Your task to perform on an android device: What's the weather going to be tomorrow? Image 0: 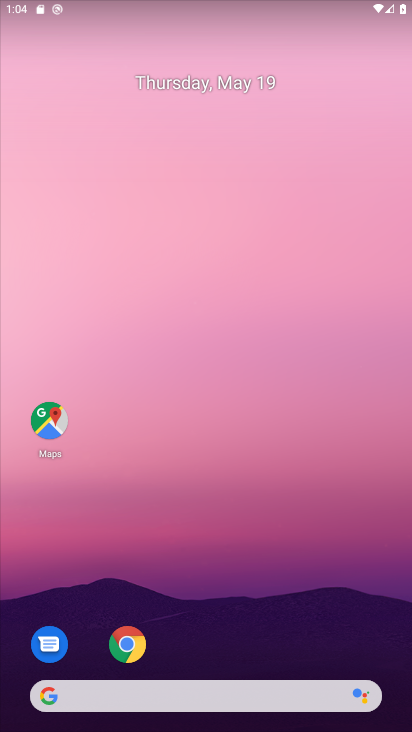
Step 0: click (131, 640)
Your task to perform on an android device: What's the weather going to be tomorrow? Image 1: 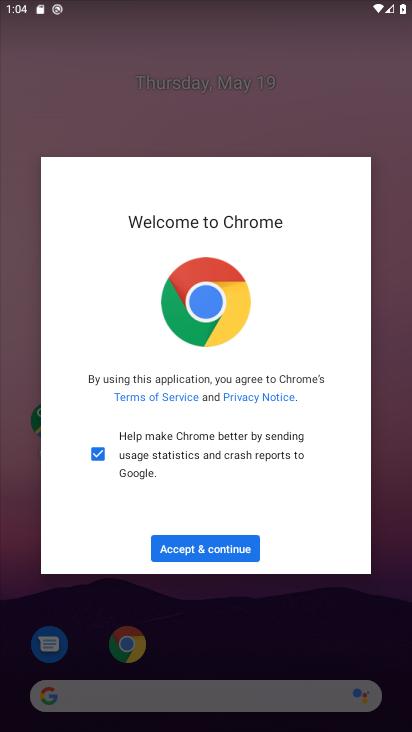
Step 1: click (198, 550)
Your task to perform on an android device: What's the weather going to be tomorrow? Image 2: 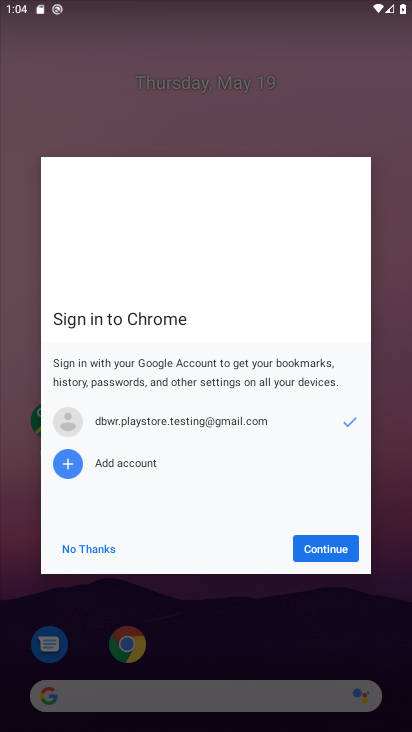
Step 2: click (319, 538)
Your task to perform on an android device: What's the weather going to be tomorrow? Image 3: 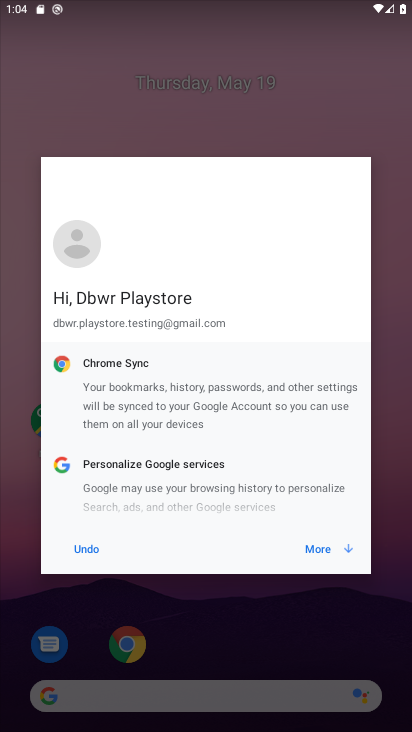
Step 3: click (315, 552)
Your task to perform on an android device: What's the weather going to be tomorrow? Image 4: 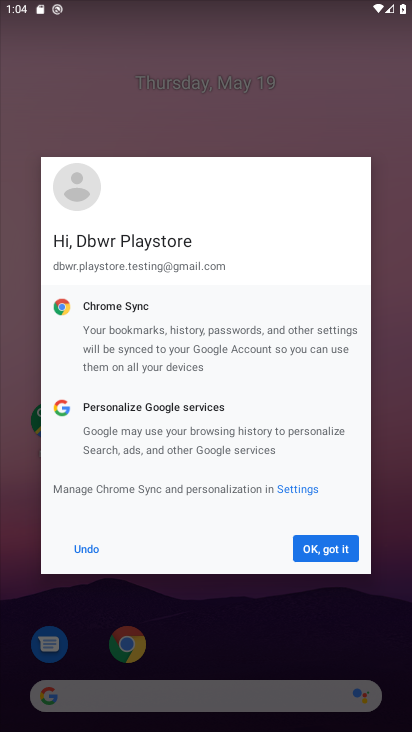
Step 4: click (316, 553)
Your task to perform on an android device: What's the weather going to be tomorrow? Image 5: 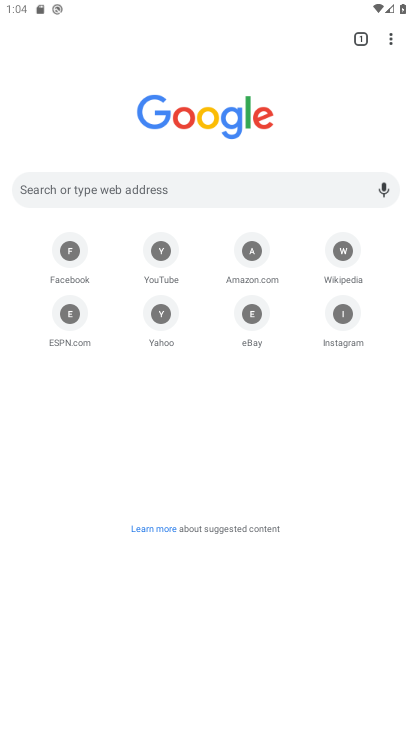
Step 5: click (189, 31)
Your task to perform on an android device: What's the weather going to be tomorrow? Image 6: 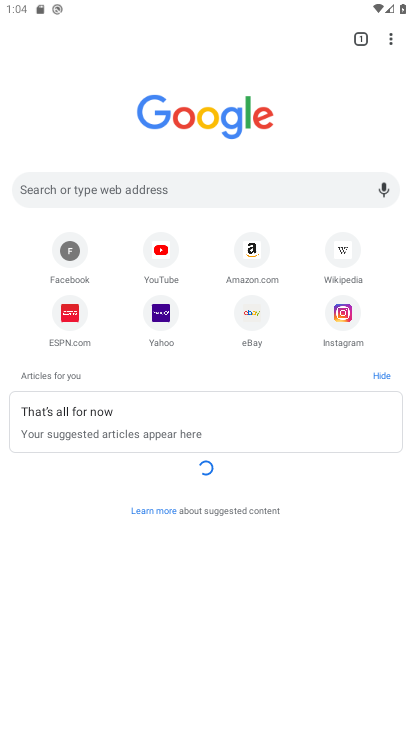
Step 6: click (227, 191)
Your task to perform on an android device: What's the weather going to be tomorrow? Image 7: 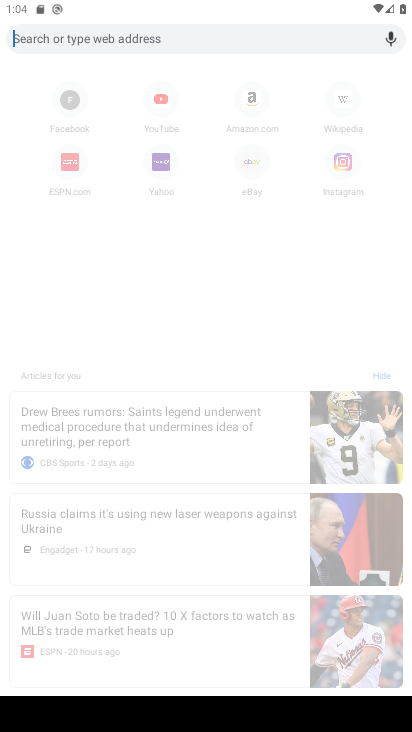
Step 7: type "weather"
Your task to perform on an android device: What's the weather going to be tomorrow? Image 8: 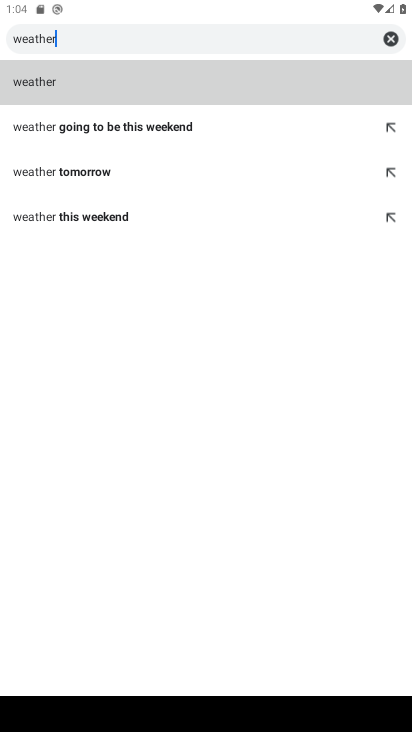
Step 8: click (54, 82)
Your task to perform on an android device: What's the weather going to be tomorrow? Image 9: 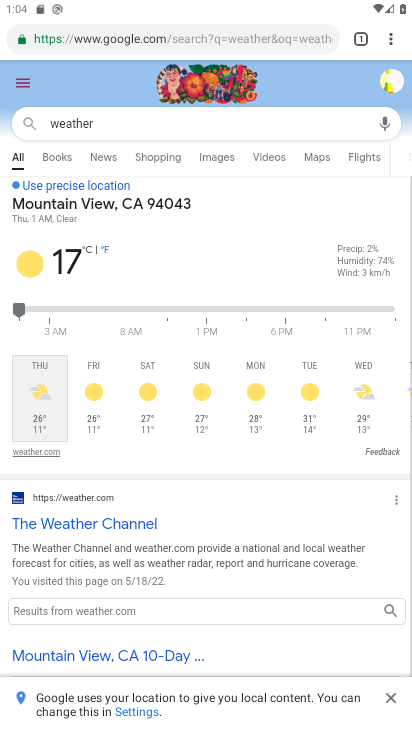
Step 9: click (102, 380)
Your task to perform on an android device: What's the weather going to be tomorrow? Image 10: 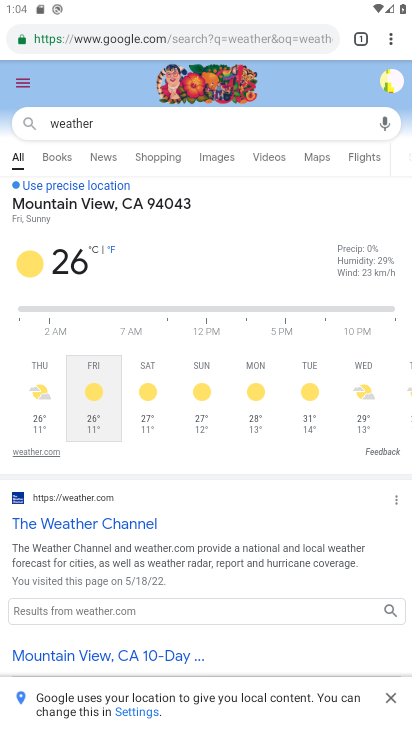
Step 10: task complete